Your task to perform on an android device: Show me recent news Image 0: 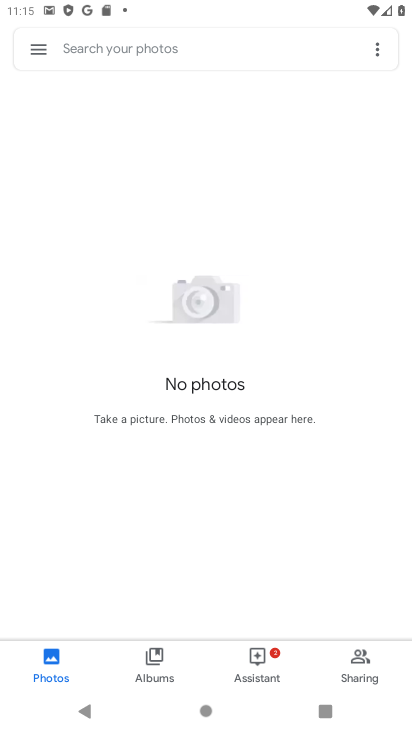
Step 0: press home button
Your task to perform on an android device: Show me recent news Image 1: 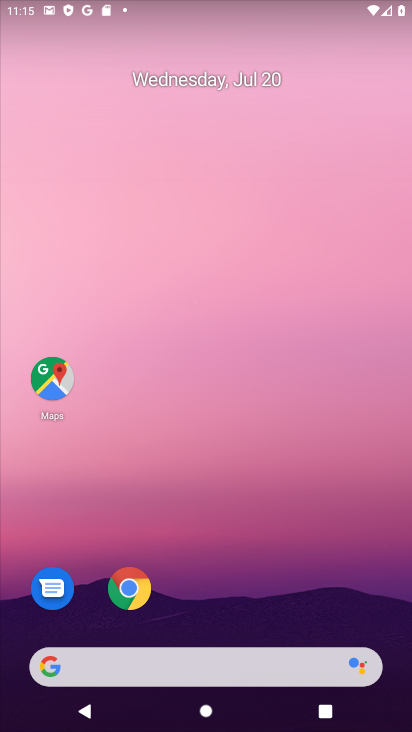
Step 1: drag from (183, 597) to (254, 163)
Your task to perform on an android device: Show me recent news Image 2: 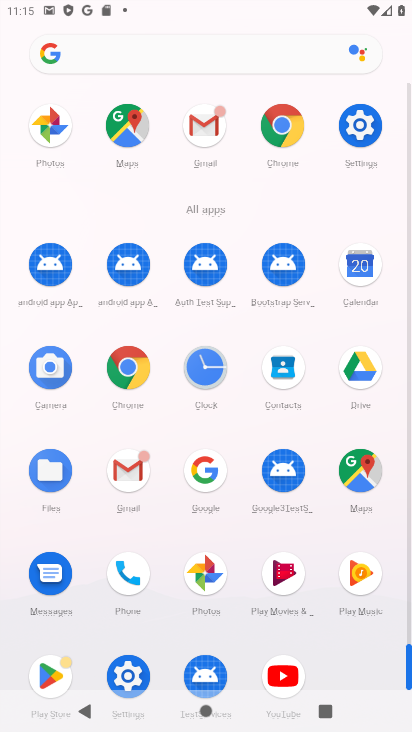
Step 2: click (170, 45)
Your task to perform on an android device: Show me recent news Image 3: 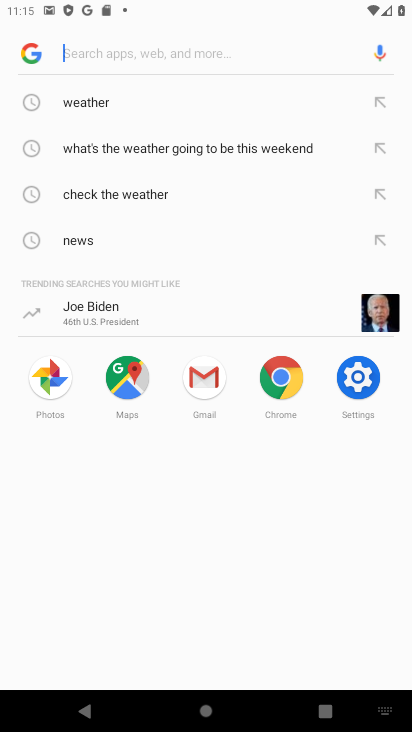
Step 3: type "recent news"
Your task to perform on an android device: Show me recent news Image 4: 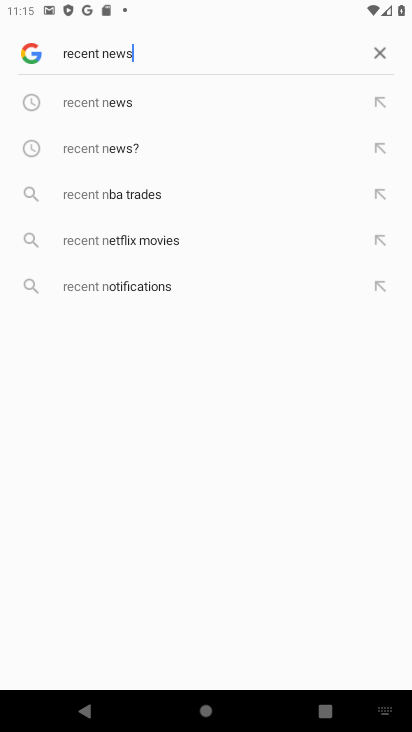
Step 4: type ""
Your task to perform on an android device: Show me recent news Image 5: 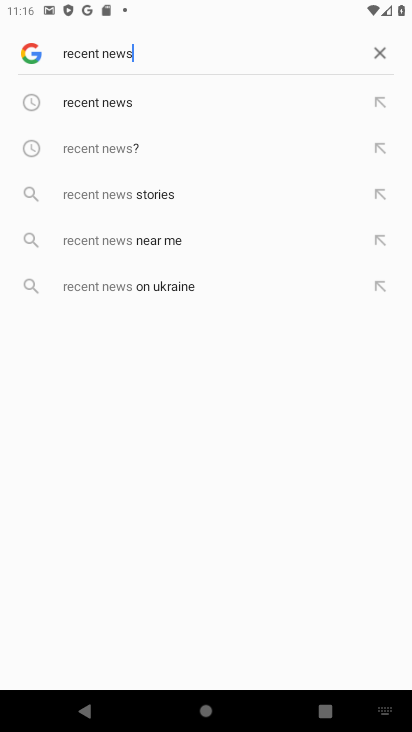
Step 5: click (113, 103)
Your task to perform on an android device: Show me recent news Image 6: 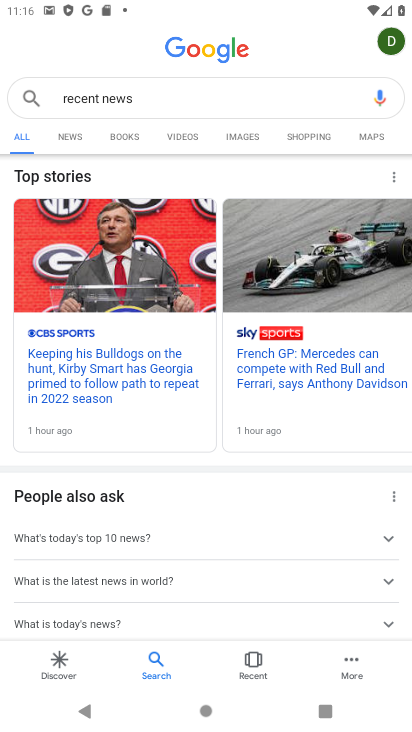
Step 6: click (217, 218)
Your task to perform on an android device: Show me recent news Image 7: 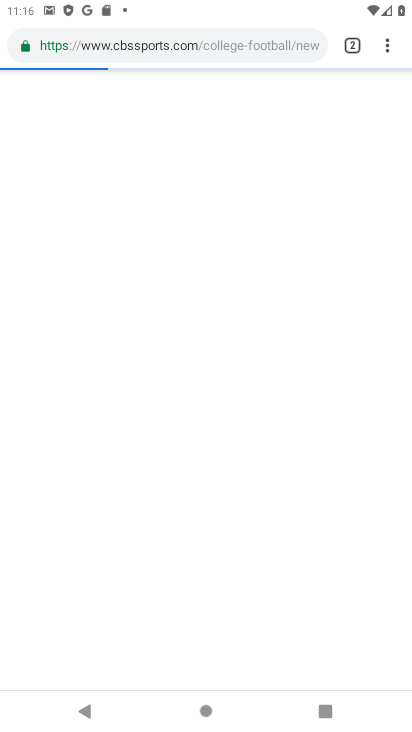
Step 7: task complete